Your task to perform on an android device: open wifi settings Image 0: 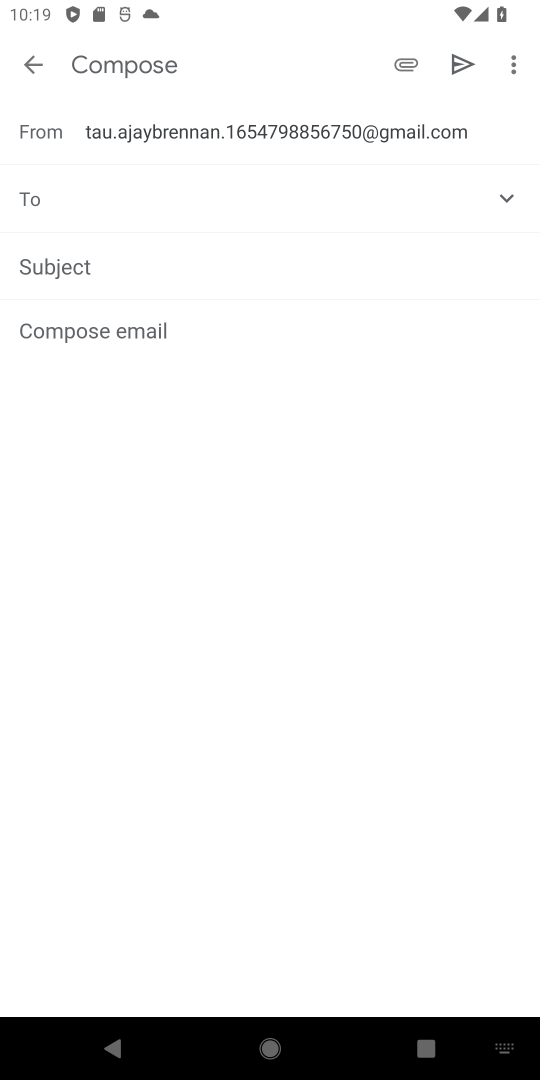
Step 0: press home button
Your task to perform on an android device: open wifi settings Image 1: 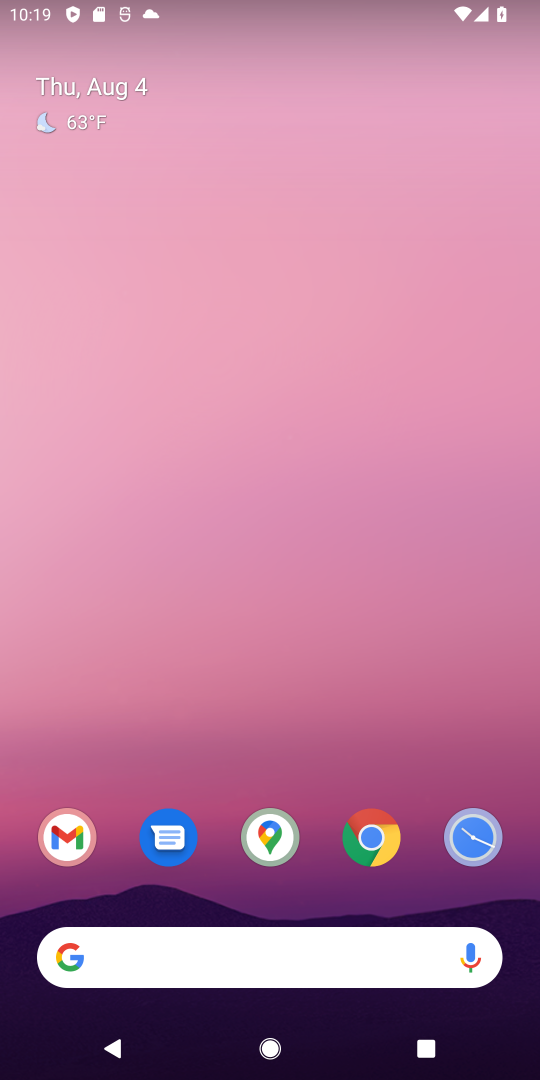
Step 1: drag from (239, 908) to (274, 212)
Your task to perform on an android device: open wifi settings Image 2: 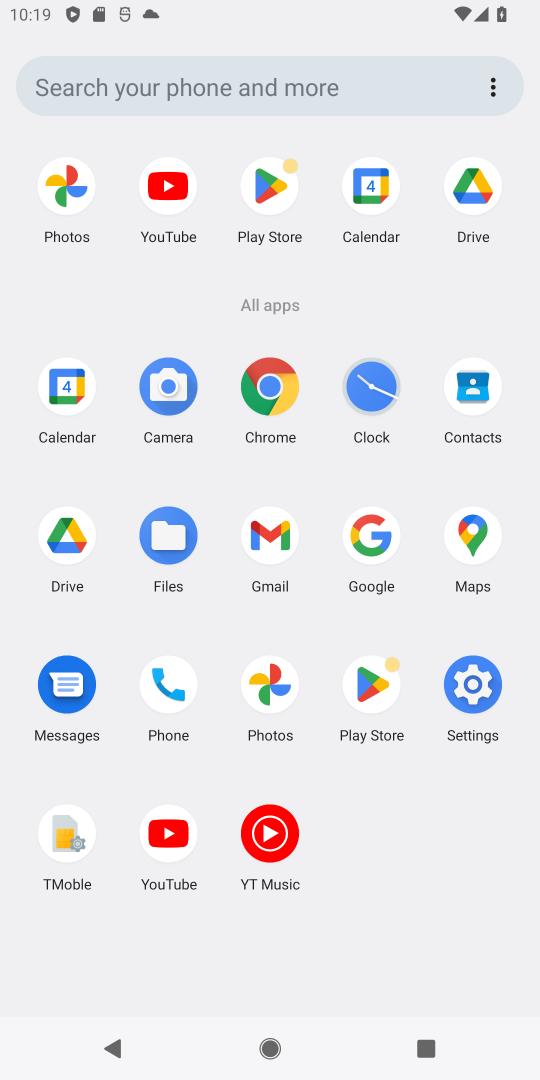
Step 2: click (485, 673)
Your task to perform on an android device: open wifi settings Image 3: 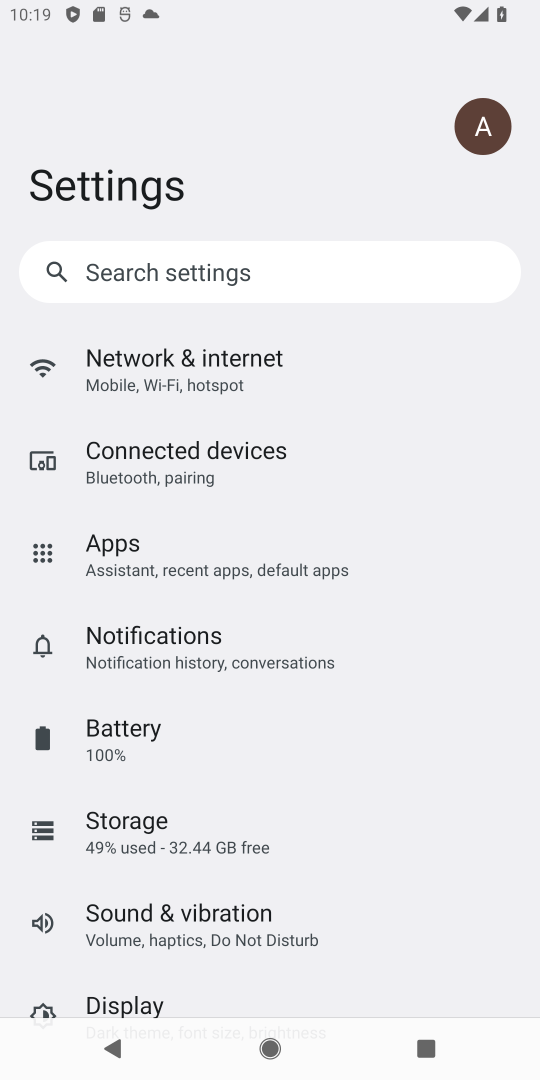
Step 3: click (191, 366)
Your task to perform on an android device: open wifi settings Image 4: 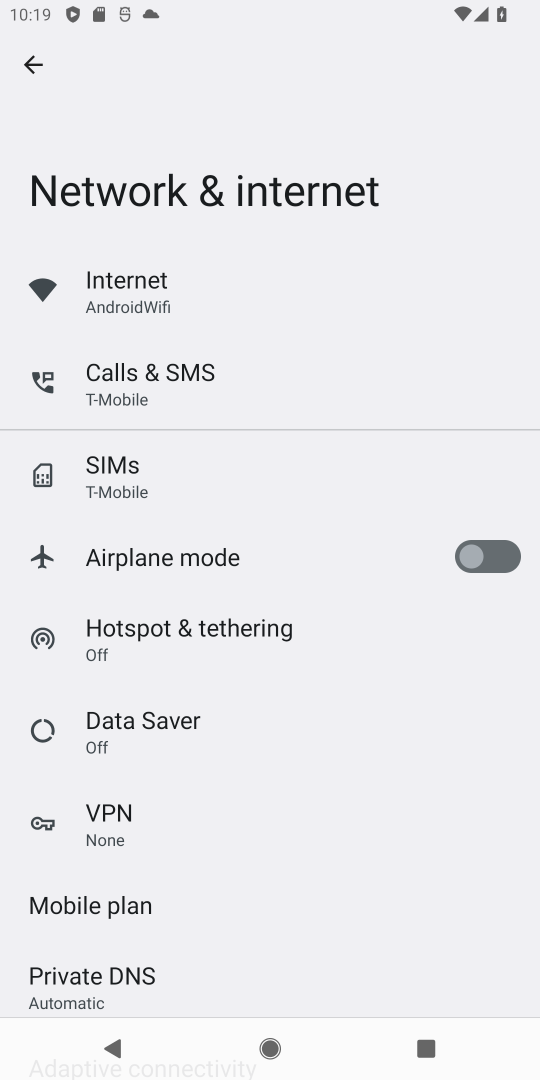
Step 4: click (153, 299)
Your task to perform on an android device: open wifi settings Image 5: 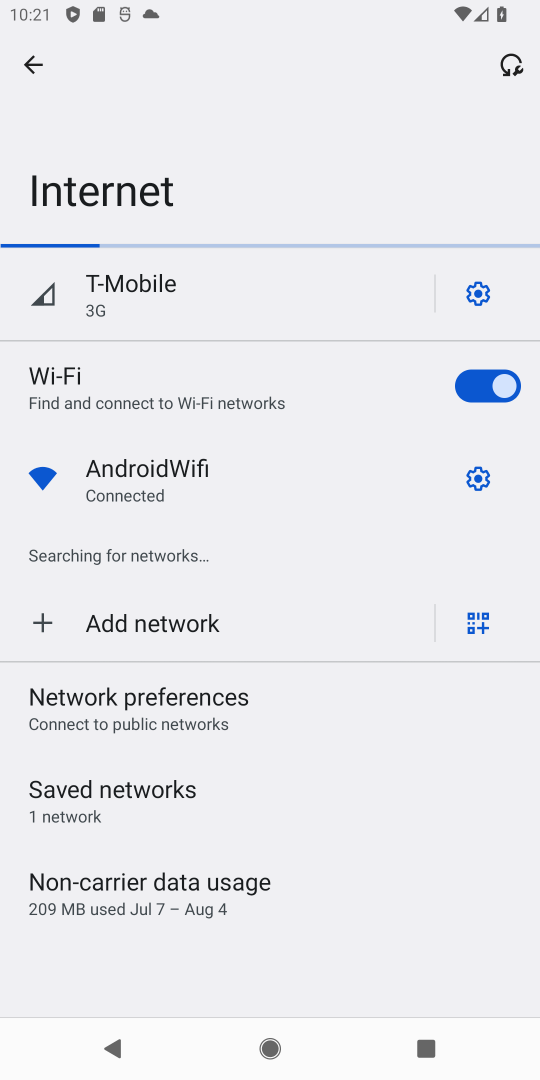
Step 5: task complete